Your task to perform on an android device: When is my next meeting? Image 0: 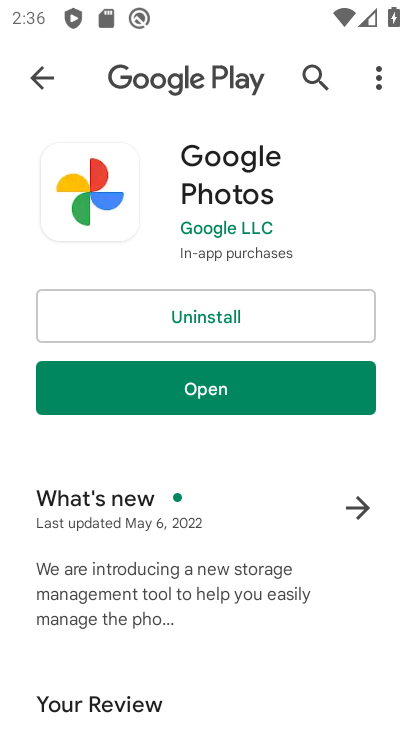
Step 0: press home button
Your task to perform on an android device: When is my next meeting? Image 1: 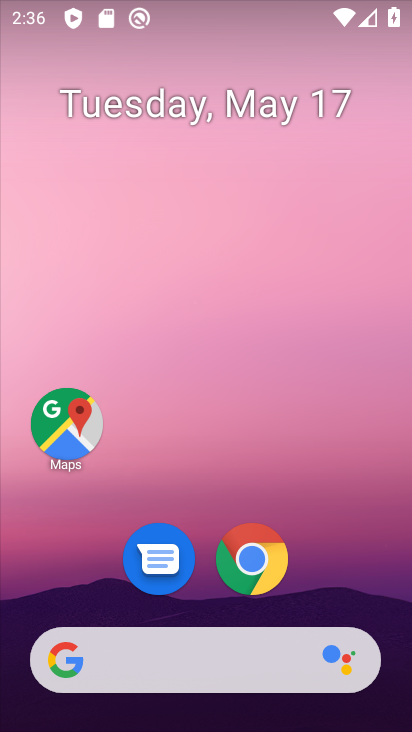
Step 1: drag from (357, 584) to (308, 104)
Your task to perform on an android device: When is my next meeting? Image 2: 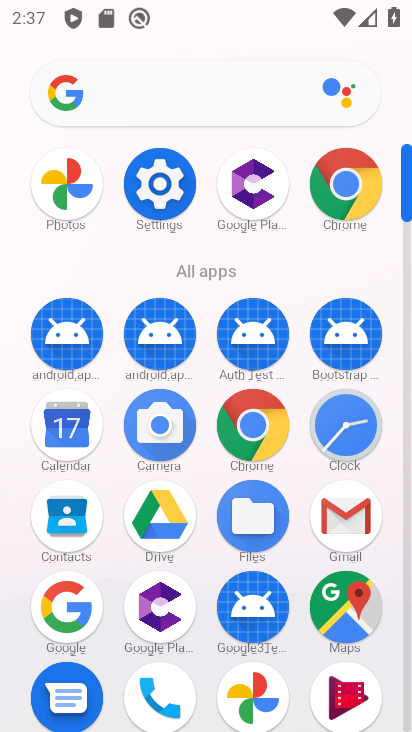
Step 2: click (80, 420)
Your task to perform on an android device: When is my next meeting? Image 3: 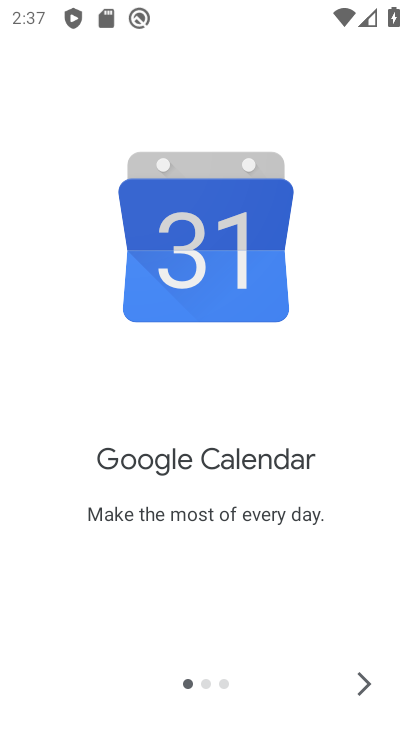
Step 3: click (355, 696)
Your task to perform on an android device: When is my next meeting? Image 4: 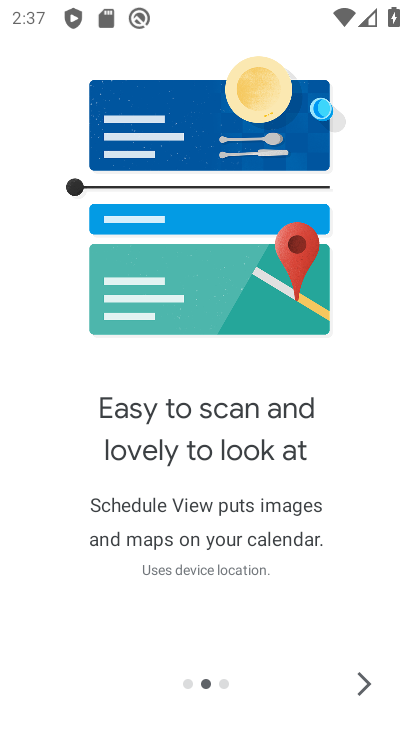
Step 4: click (355, 696)
Your task to perform on an android device: When is my next meeting? Image 5: 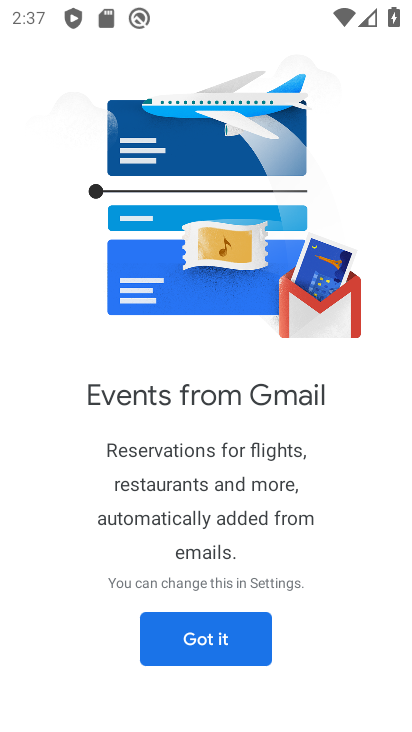
Step 5: click (249, 650)
Your task to perform on an android device: When is my next meeting? Image 6: 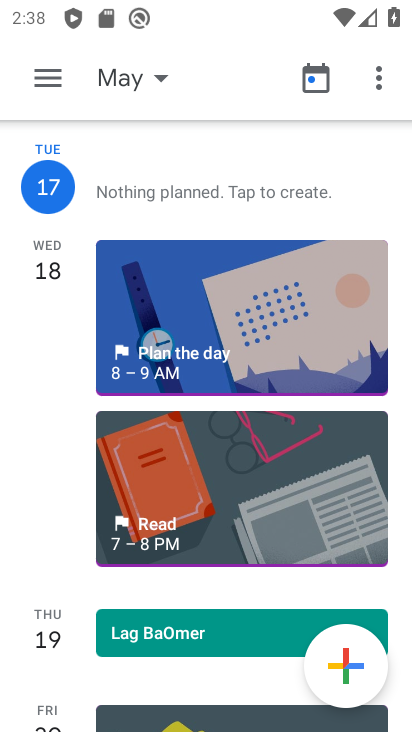
Step 6: click (46, 85)
Your task to perform on an android device: When is my next meeting? Image 7: 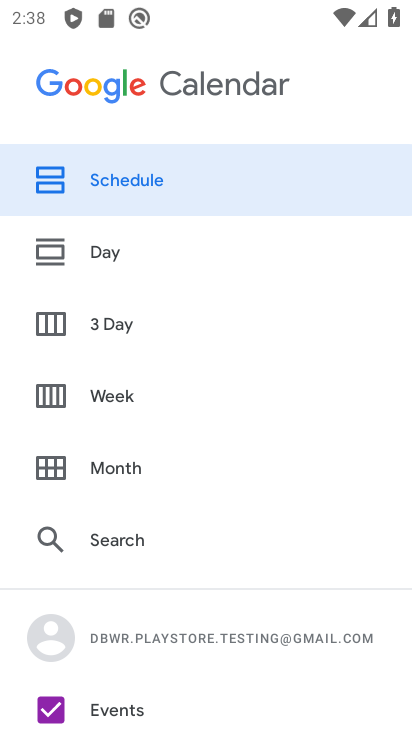
Step 7: click (128, 195)
Your task to perform on an android device: When is my next meeting? Image 8: 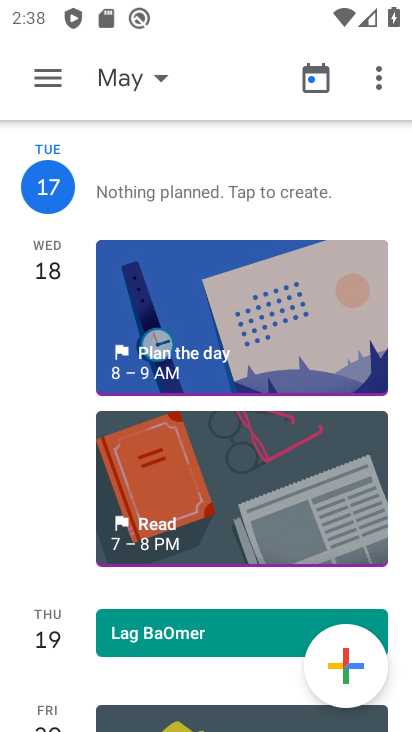
Step 8: task complete